Your task to perform on an android device: Open Reddit.com Image 0: 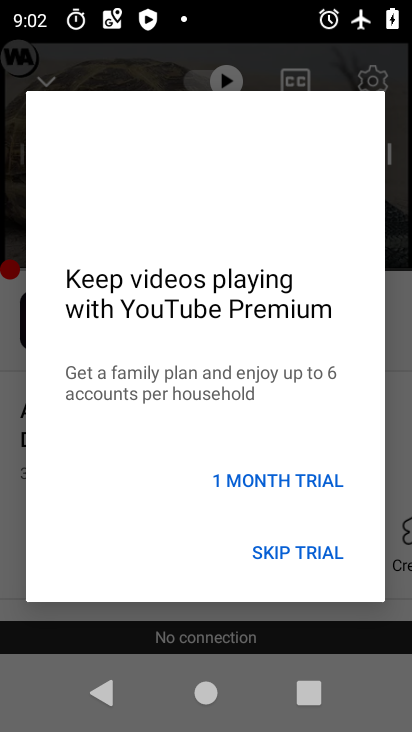
Step 0: press home button
Your task to perform on an android device: Open Reddit.com Image 1: 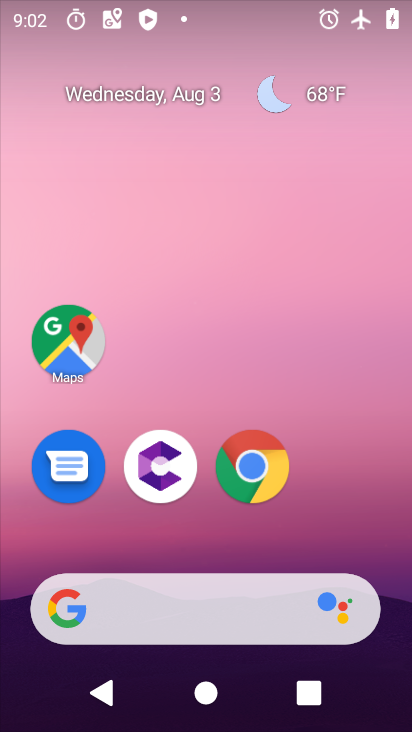
Step 1: drag from (322, 458) to (328, 55)
Your task to perform on an android device: Open Reddit.com Image 2: 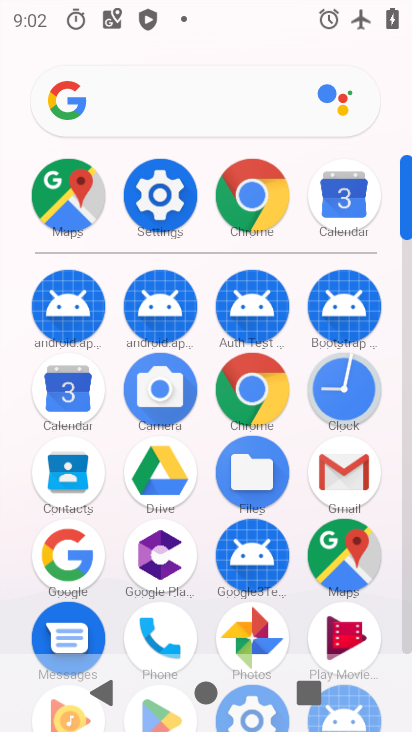
Step 2: click (258, 189)
Your task to perform on an android device: Open Reddit.com Image 3: 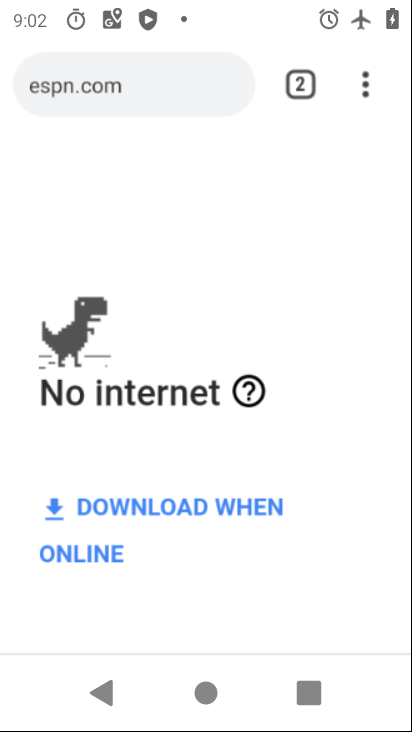
Step 3: click (213, 77)
Your task to perform on an android device: Open Reddit.com Image 4: 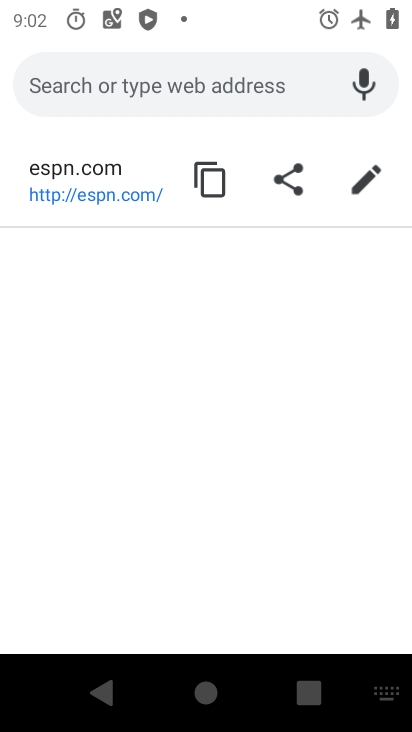
Step 4: type "reddit.com"
Your task to perform on an android device: Open Reddit.com Image 5: 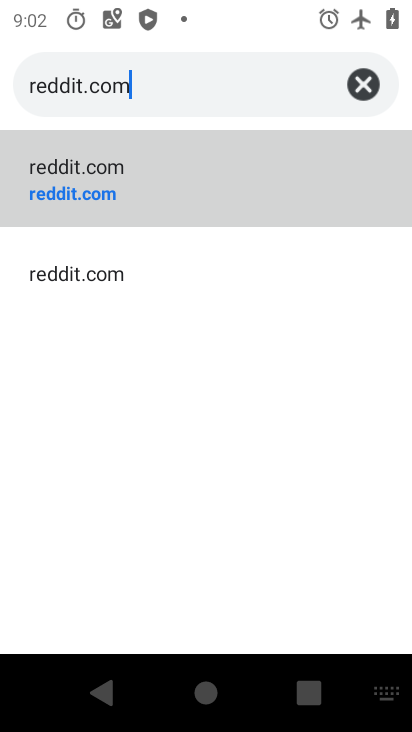
Step 5: click (98, 192)
Your task to perform on an android device: Open Reddit.com Image 6: 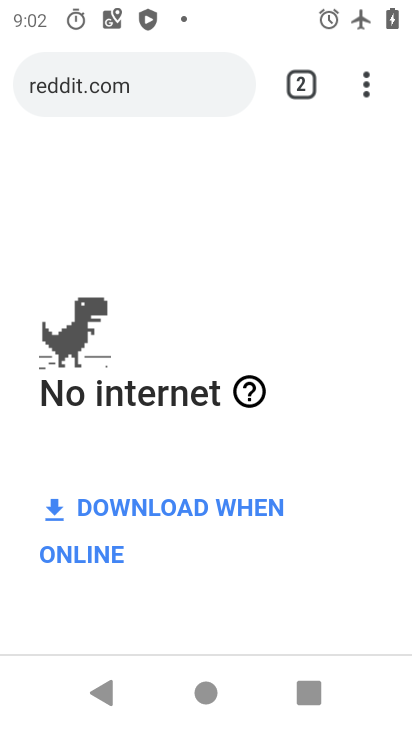
Step 6: task complete